Your task to perform on an android device: move an email to a new category in the gmail app Image 0: 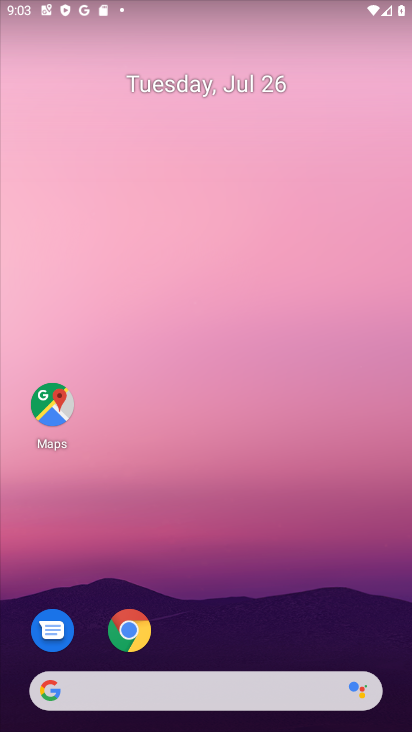
Step 0: drag from (260, 643) to (215, 213)
Your task to perform on an android device: move an email to a new category in the gmail app Image 1: 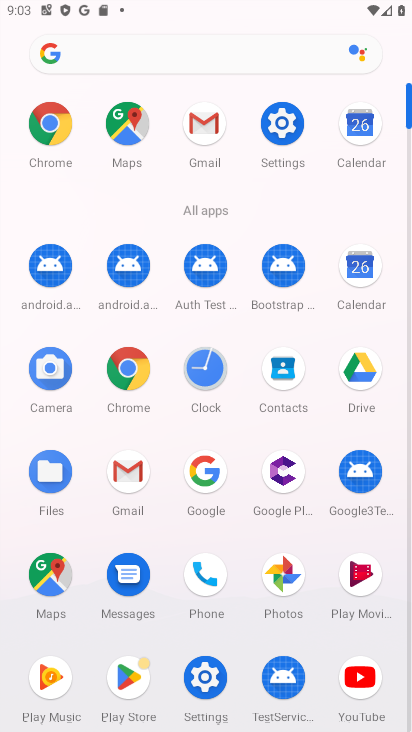
Step 1: click (199, 124)
Your task to perform on an android device: move an email to a new category in the gmail app Image 2: 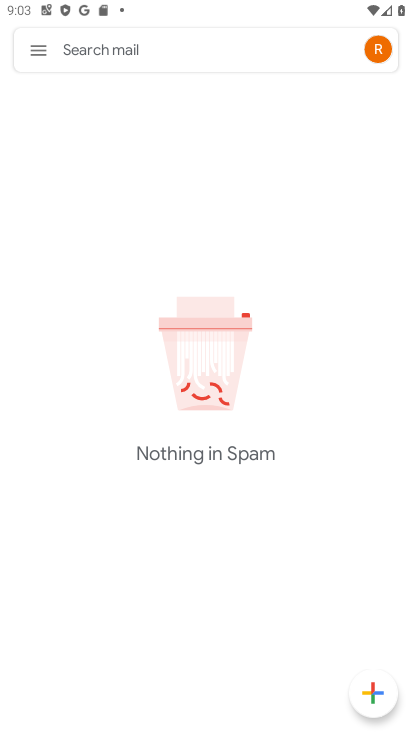
Step 2: click (32, 56)
Your task to perform on an android device: move an email to a new category in the gmail app Image 3: 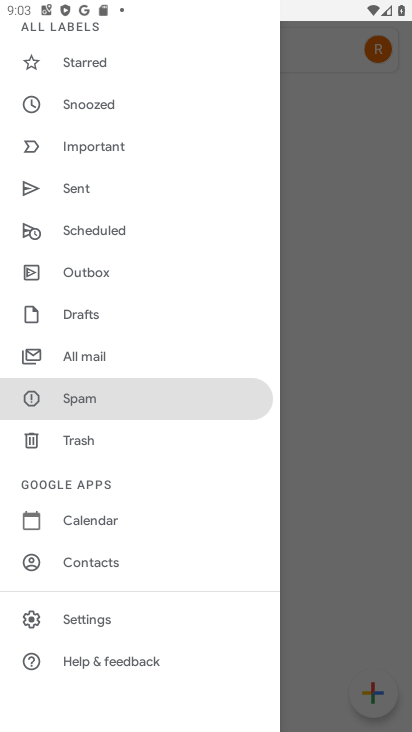
Step 3: click (92, 358)
Your task to perform on an android device: move an email to a new category in the gmail app Image 4: 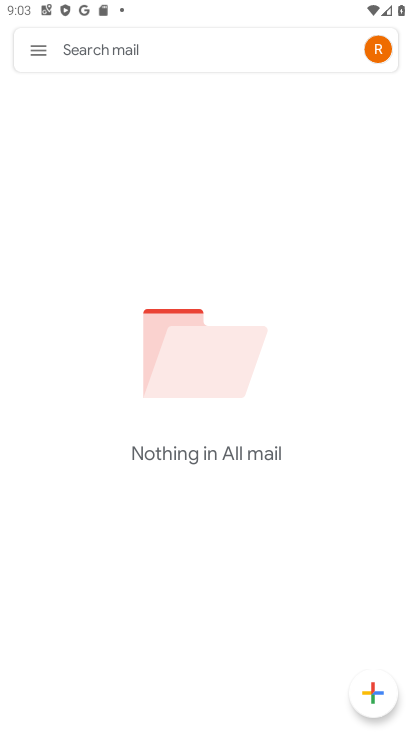
Step 4: task complete